Your task to perform on an android device: change alarm snooze length Image 0: 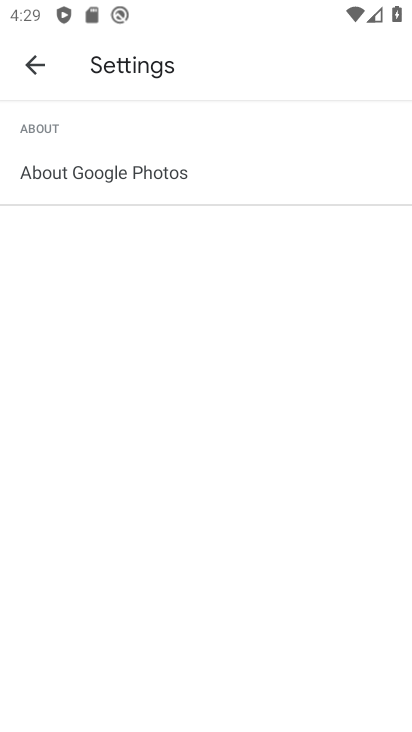
Step 0: press home button
Your task to perform on an android device: change alarm snooze length Image 1: 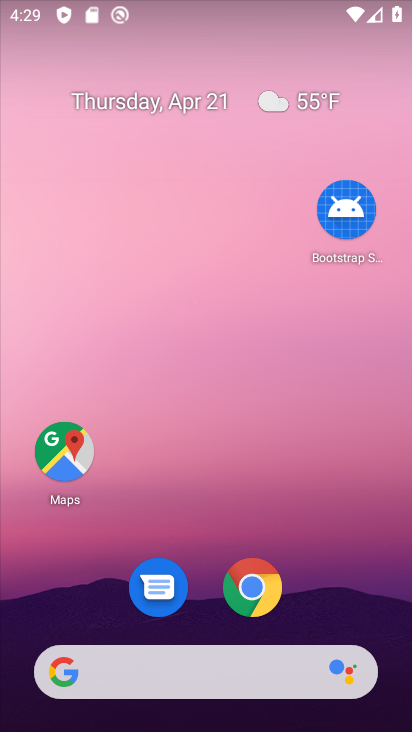
Step 1: drag from (305, 569) to (311, 163)
Your task to perform on an android device: change alarm snooze length Image 2: 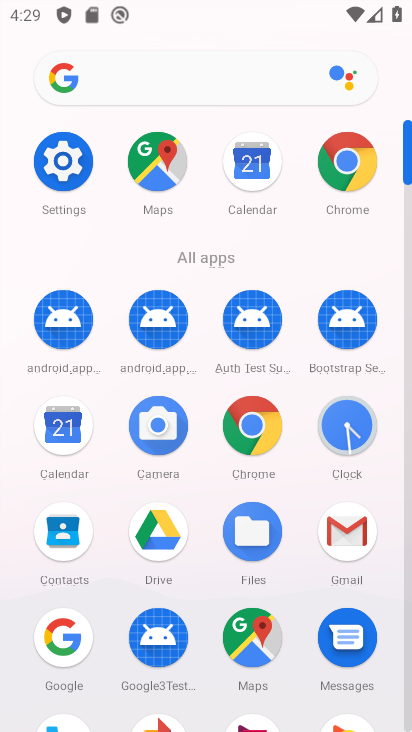
Step 2: click (344, 429)
Your task to perform on an android device: change alarm snooze length Image 3: 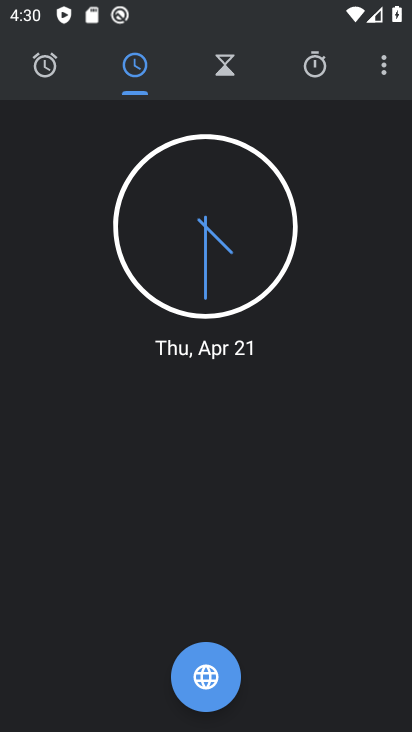
Step 3: click (387, 77)
Your task to perform on an android device: change alarm snooze length Image 4: 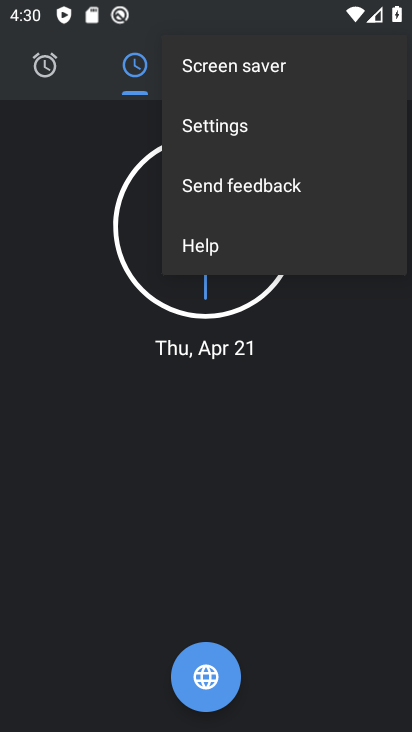
Step 4: click (242, 132)
Your task to perform on an android device: change alarm snooze length Image 5: 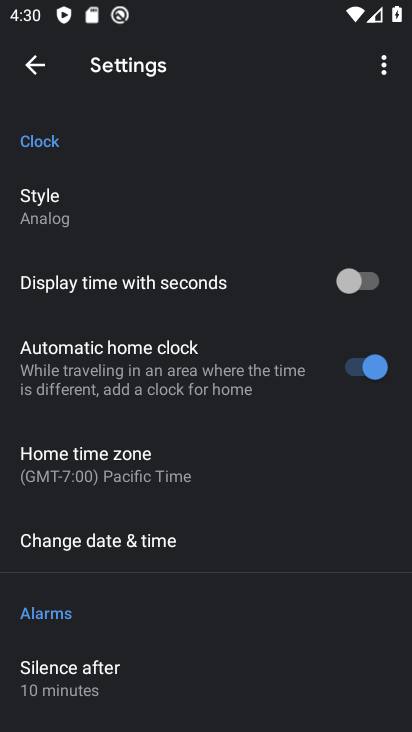
Step 5: drag from (192, 559) to (204, 197)
Your task to perform on an android device: change alarm snooze length Image 6: 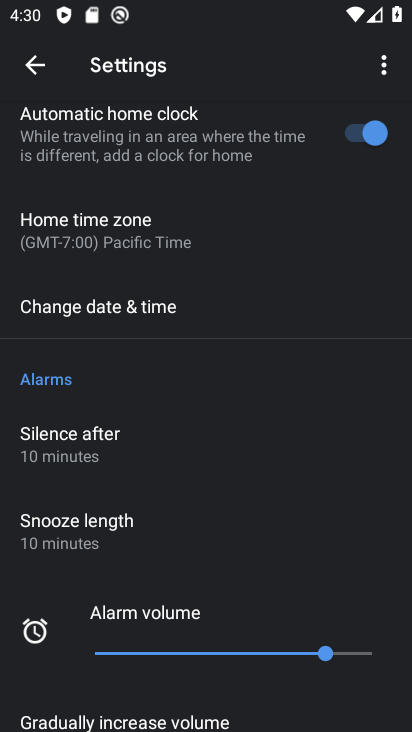
Step 6: click (119, 520)
Your task to perform on an android device: change alarm snooze length Image 7: 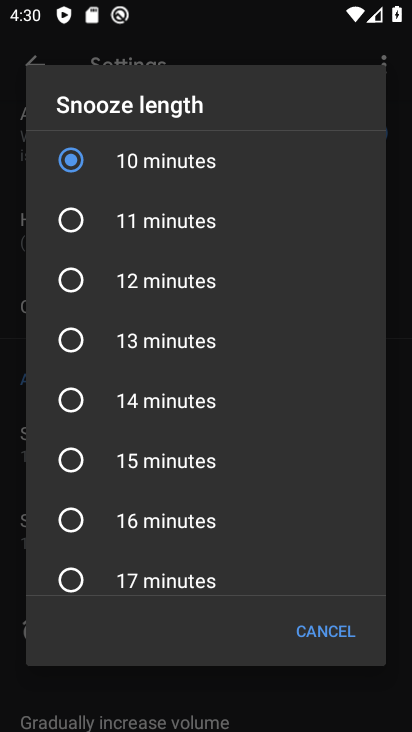
Step 7: click (157, 340)
Your task to perform on an android device: change alarm snooze length Image 8: 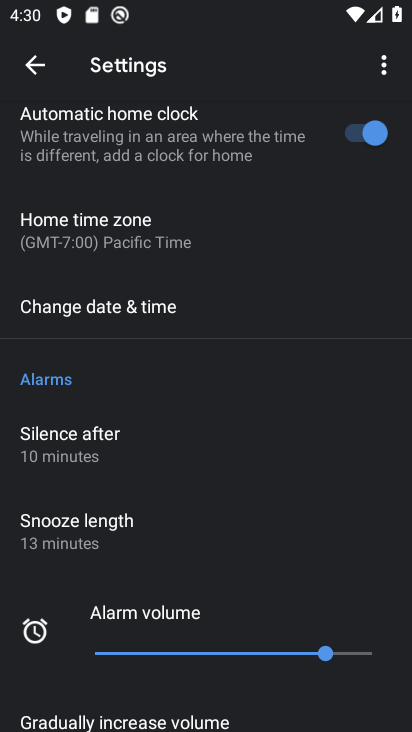
Step 8: task complete